Your task to perform on an android device: empty trash in the gmail app Image 0: 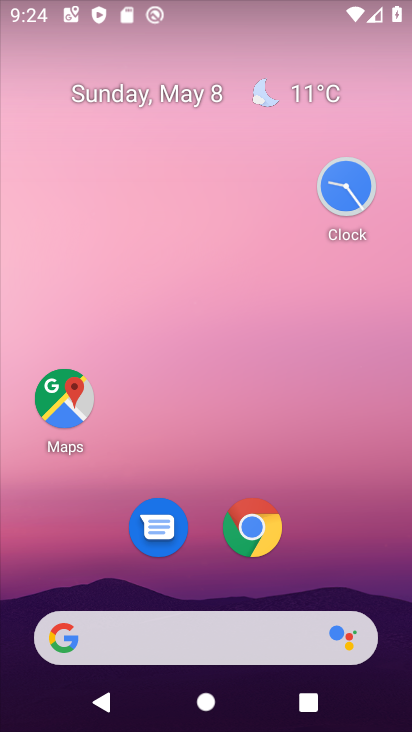
Step 0: drag from (352, 535) to (288, 49)
Your task to perform on an android device: empty trash in the gmail app Image 1: 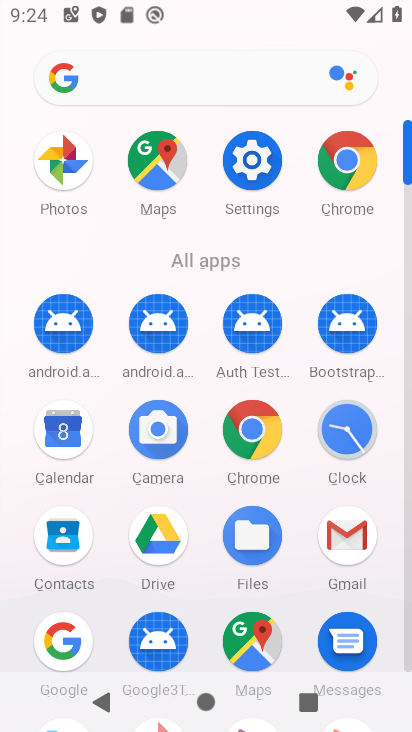
Step 1: click (350, 537)
Your task to perform on an android device: empty trash in the gmail app Image 2: 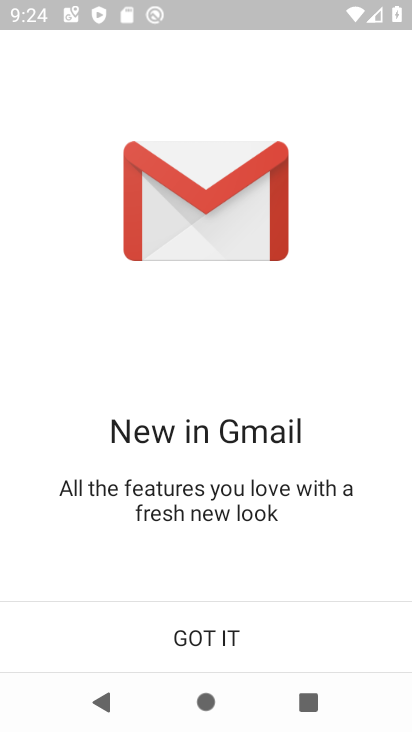
Step 2: click (197, 650)
Your task to perform on an android device: empty trash in the gmail app Image 3: 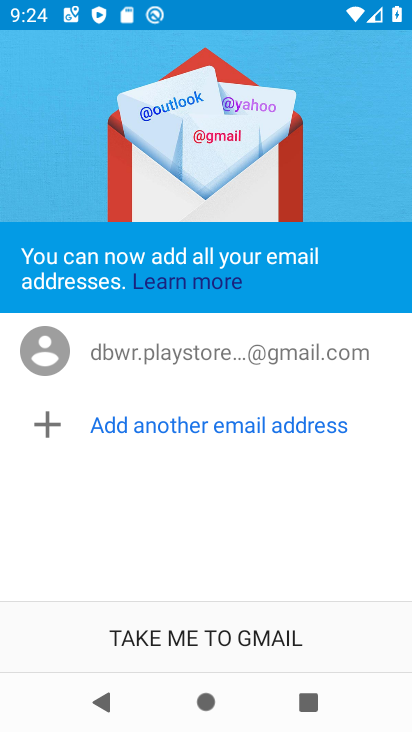
Step 3: click (198, 646)
Your task to perform on an android device: empty trash in the gmail app Image 4: 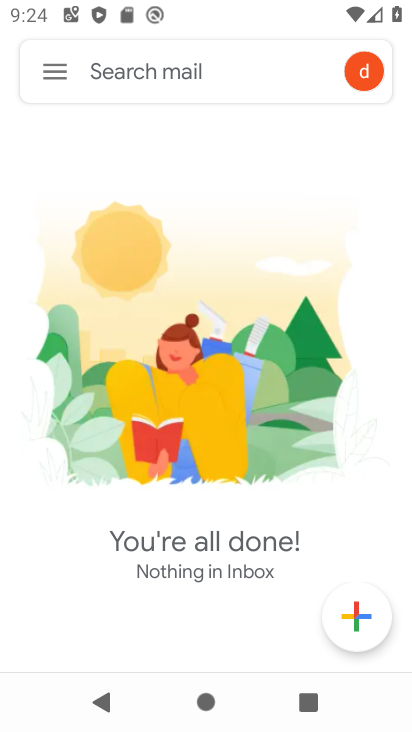
Step 4: click (55, 68)
Your task to perform on an android device: empty trash in the gmail app Image 5: 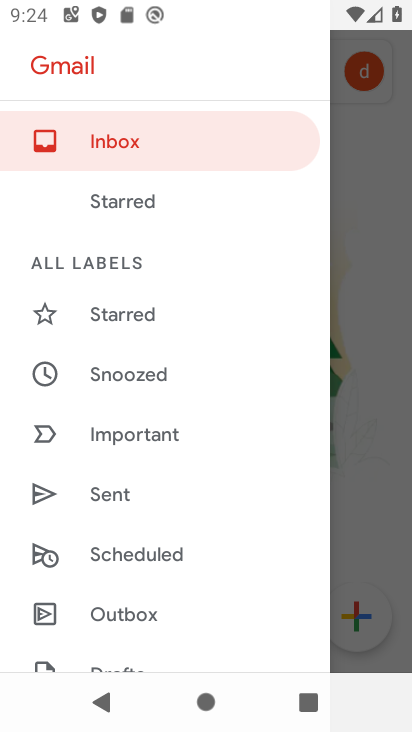
Step 5: drag from (144, 609) to (131, 322)
Your task to perform on an android device: empty trash in the gmail app Image 6: 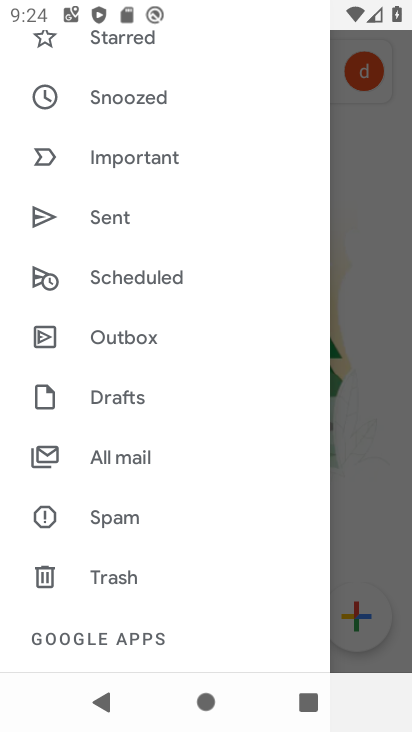
Step 6: click (120, 573)
Your task to perform on an android device: empty trash in the gmail app Image 7: 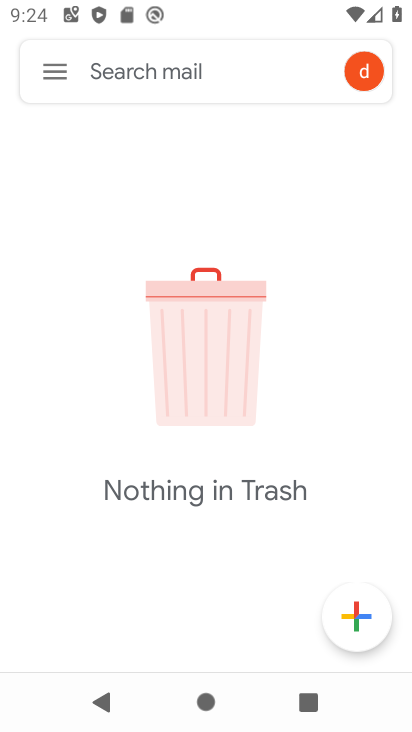
Step 7: task complete